Your task to perform on an android device: toggle priority inbox in the gmail app Image 0: 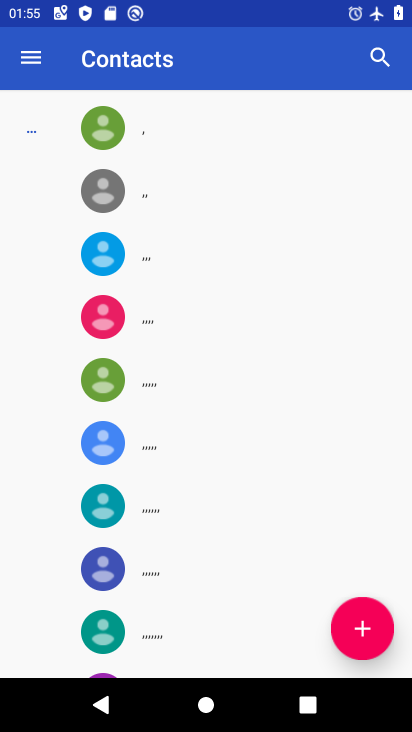
Step 0: press home button
Your task to perform on an android device: toggle priority inbox in the gmail app Image 1: 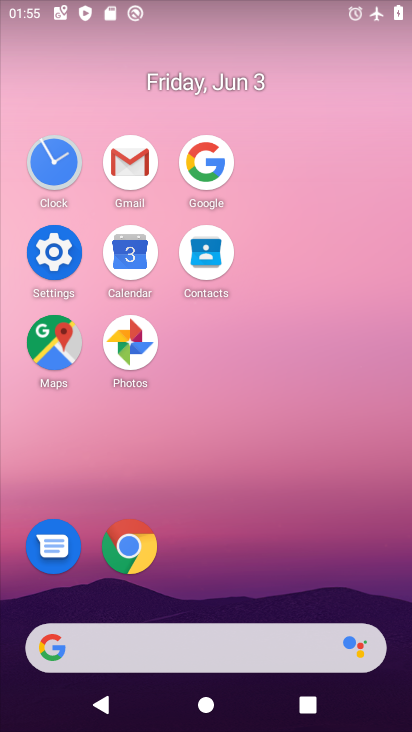
Step 1: click (119, 163)
Your task to perform on an android device: toggle priority inbox in the gmail app Image 2: 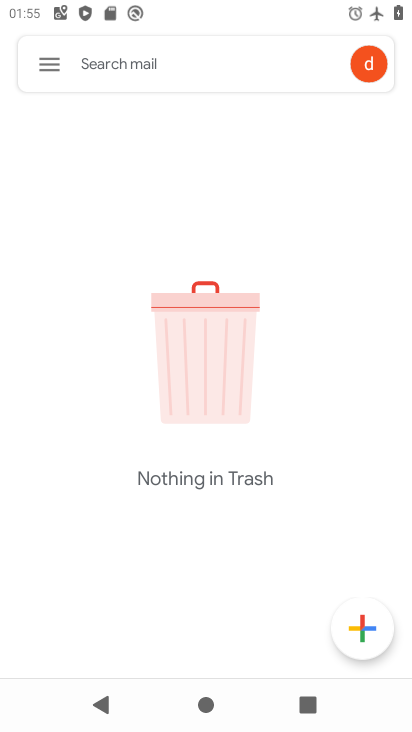
Step 2: click (57, 66)
Your task to perform on an android device: toggle priority inbox in the gmail app Image 3: 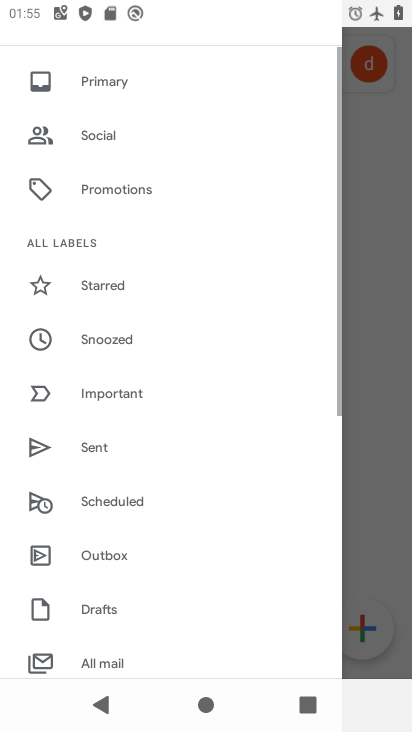
Step 3: drag from (163, 560) to (234, 159)
Your task to perform on an android device: toggle priority inbox in the gmail app Image 4: 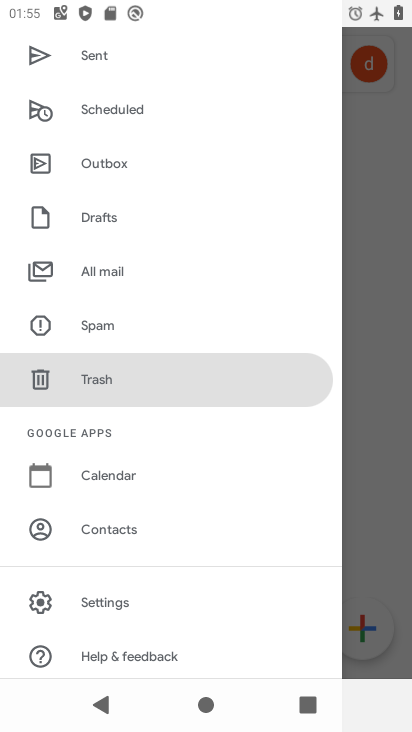
Step 4: click (128, 616)
Your task to perform on an android device: toggle priority inbox in the gmail app Image 5: 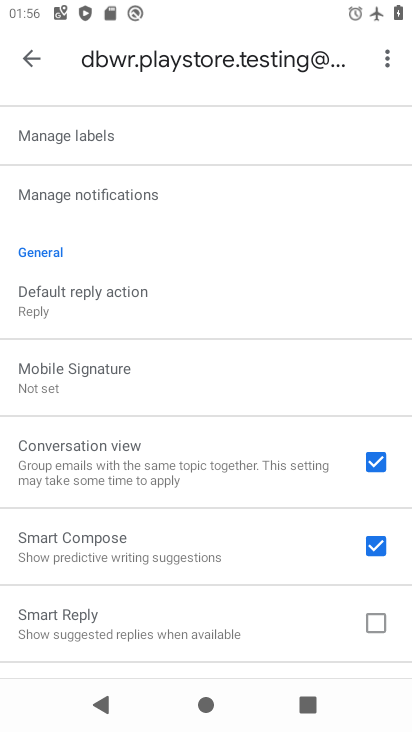
Step 5: drag from (186, 301) to (125, 676)
Your task to perform on an android device: toggle priority inbox in the gmail app Image 6: 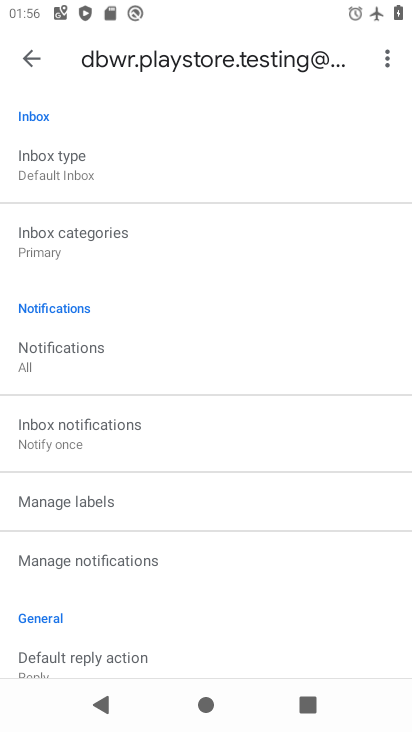
Step 6: click (121, 154)
Your task to perform on an android device: toggle priority inbox in the gmail app Image 7: 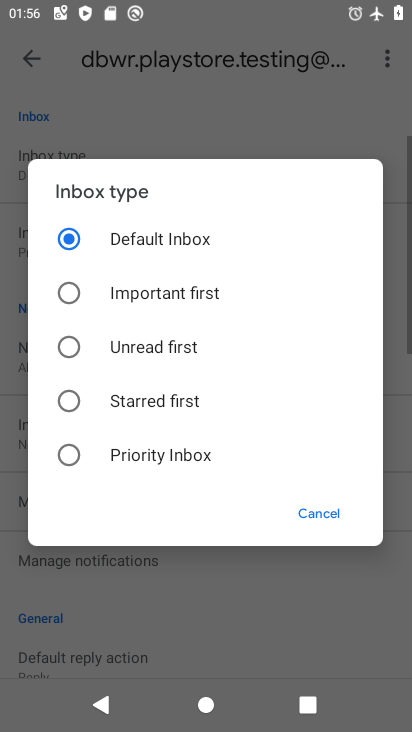
Step 7: click (108, 466)
Your task to perform on an android device: toggle priority inbox in the gmail app Image 8: 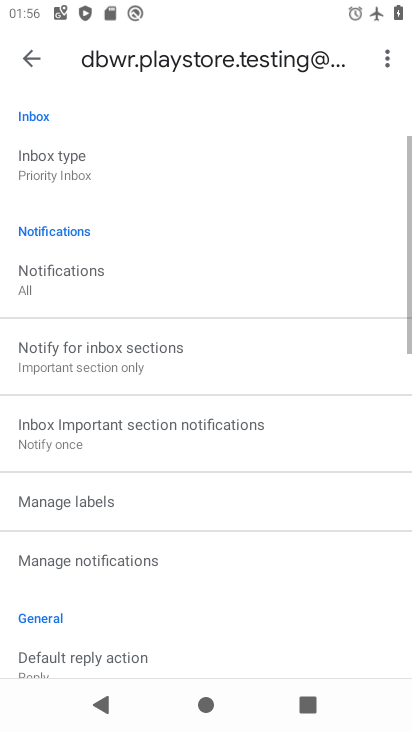
Step 8: task complete